Your task to perform on an android device: Go to notification settings Image 0: 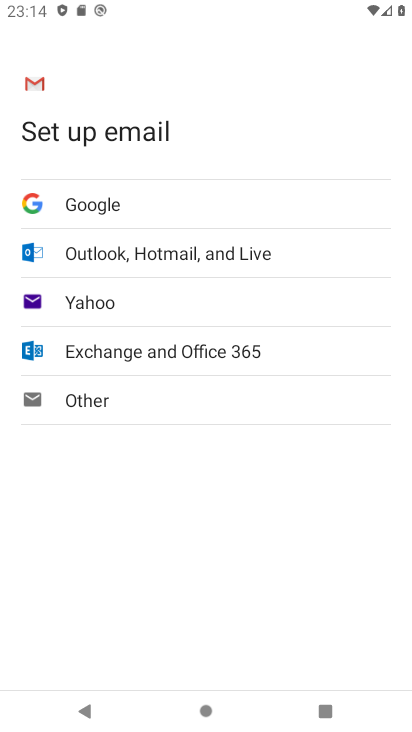
Step 0: press home button
Your task to perform on an android device: Go to notification settings Image 1: 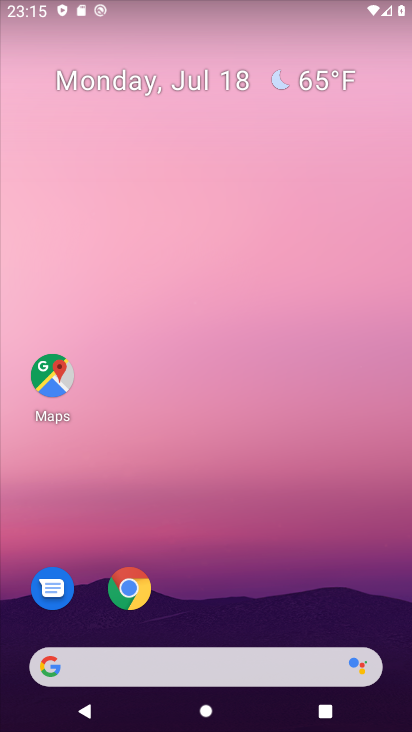
Step 1: drag from (293, 610) to (314, 125)
Your task to perform on an android device: Go to notification settings Image 2: 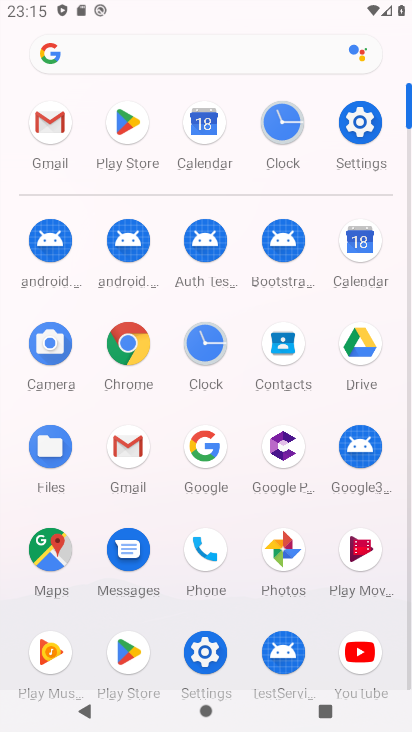
Step 2: click (353, 116)
Your task to perform on an android device: Go to notification settings Image 3: 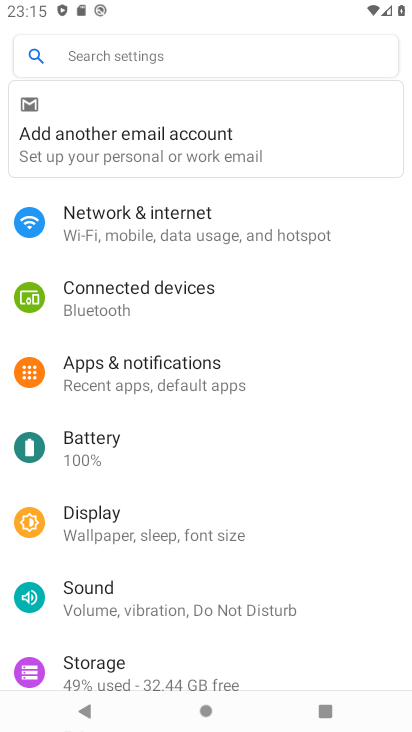
Step 3: click (143, 371)
Your task to perform on an android device: Go to notification settings Image 4: 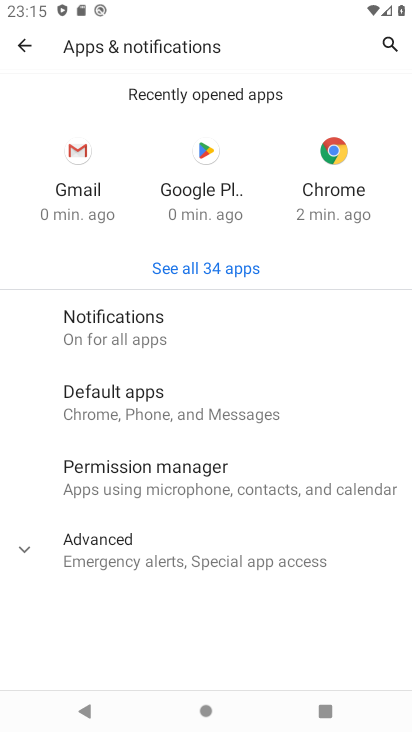
Step 4: click (127, 327)
Your task to perform on an android device: Go to notification settings Image 5: 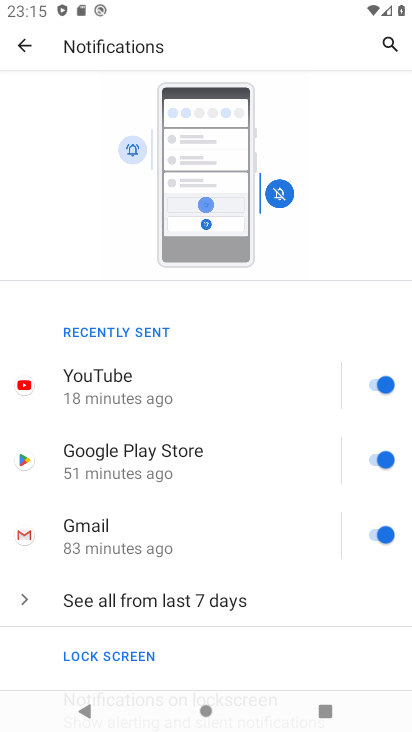
Step 5: task complete